Your task to perform on an android device: Open calendar and show me the third week of next month Image 0: 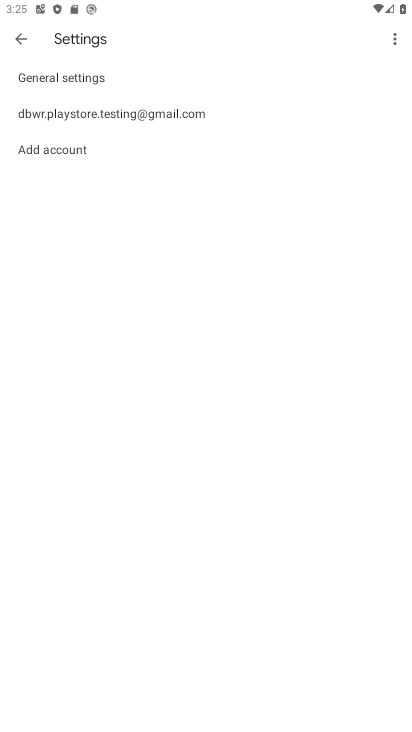
Step 0: press home button
Your task to perform on an android device: Open calendar and show me the third week of next month Image 1: 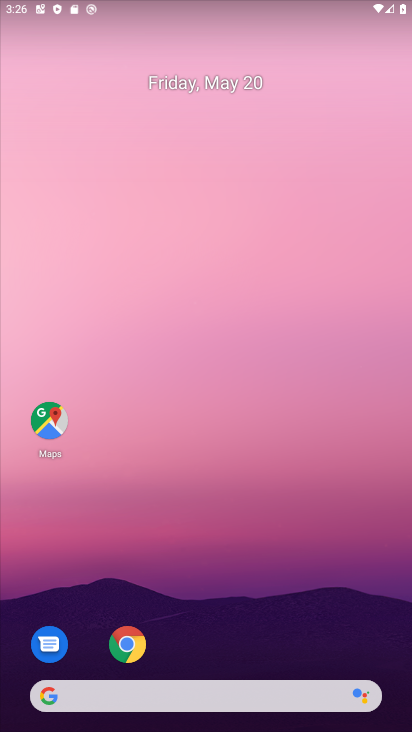
Step 1: drag from (307, 645) to (127, 17)
Your task to perform on an android device: Open calendar and show me the third week of next month Image 2: 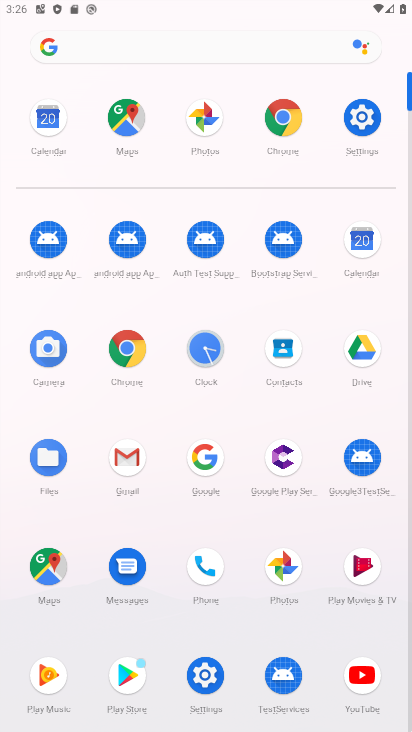
Step 2: click (66, 128)
Your task to perform on an android device: Open calendar and show me the third week of next month Image 3: 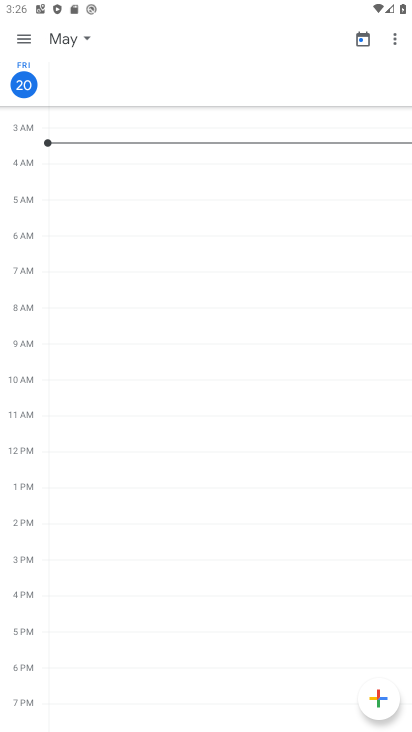
Step 3: click (63, 41)
Your task to perform on an android device: Open calendar and show me the third week of next month Image 4: 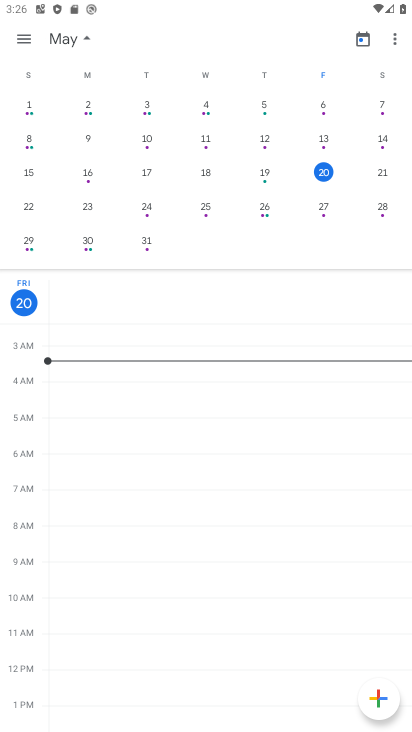
Step 4: drag from (354, 219) to (10, 191)
Your task to perform on an android device: Open calendar and show me the third week of next month Image 5: 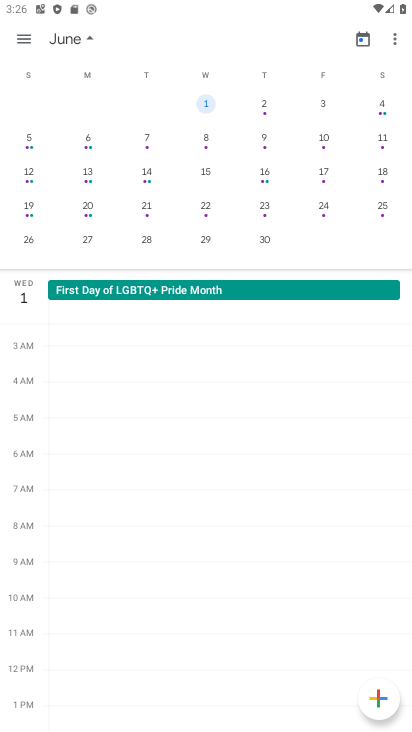
Step 5: click (223, 190)
Your task to perform on an android device: Open calendar and show me the third week of next month Image 6: 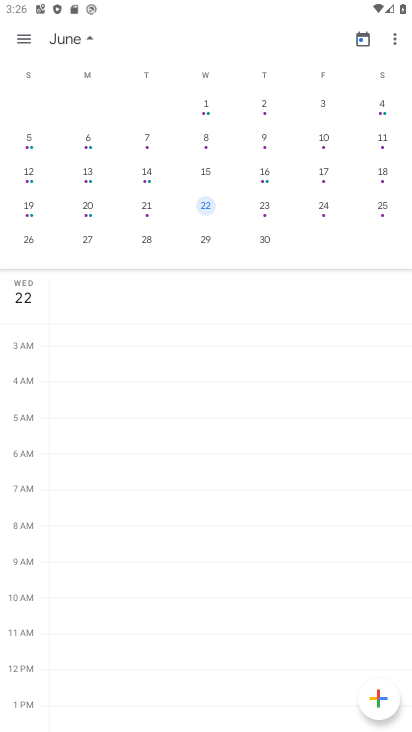
Step 6: task complete